Your task to perform on an android device: turn off airplane mode Image 0: 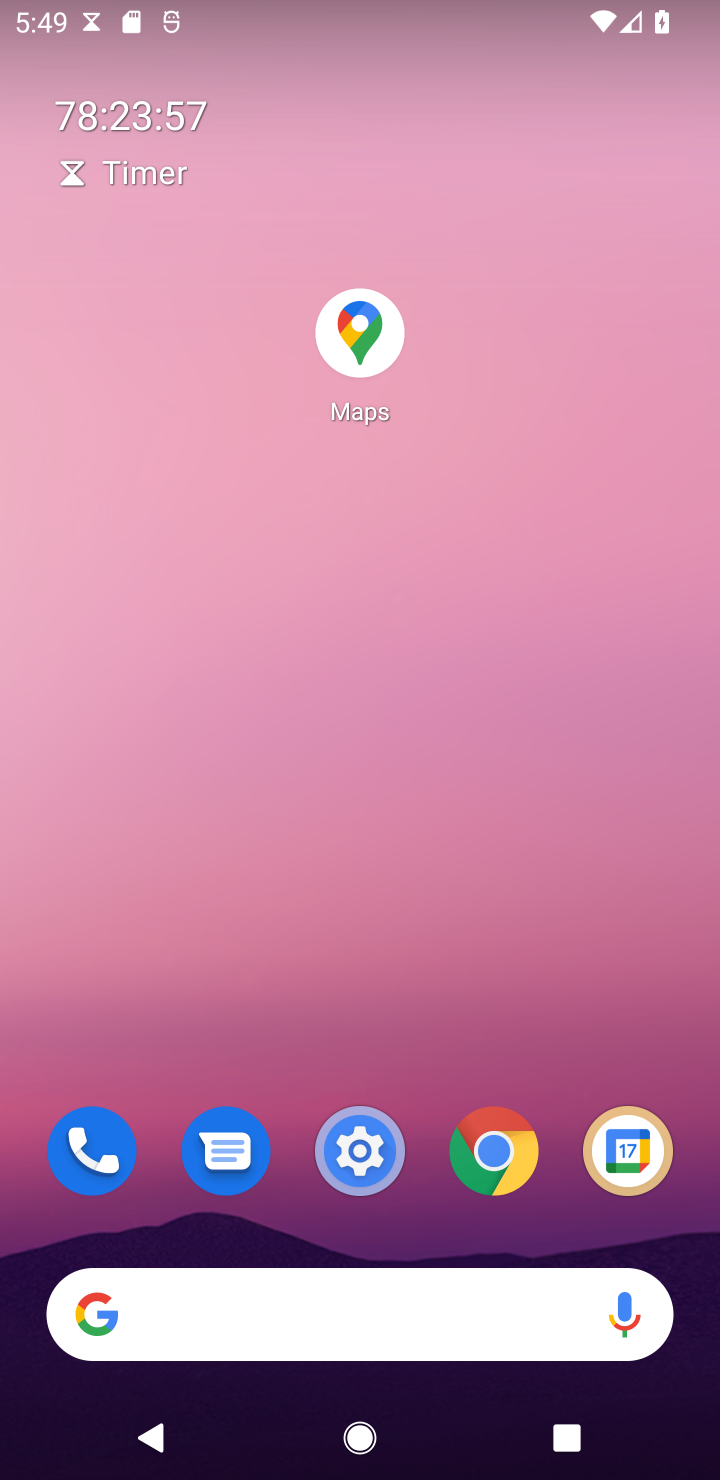
Step 0: drag from (355, 1203) to (325, 421)
Your task to perform on an android device: turn off airplane mode Image 1: 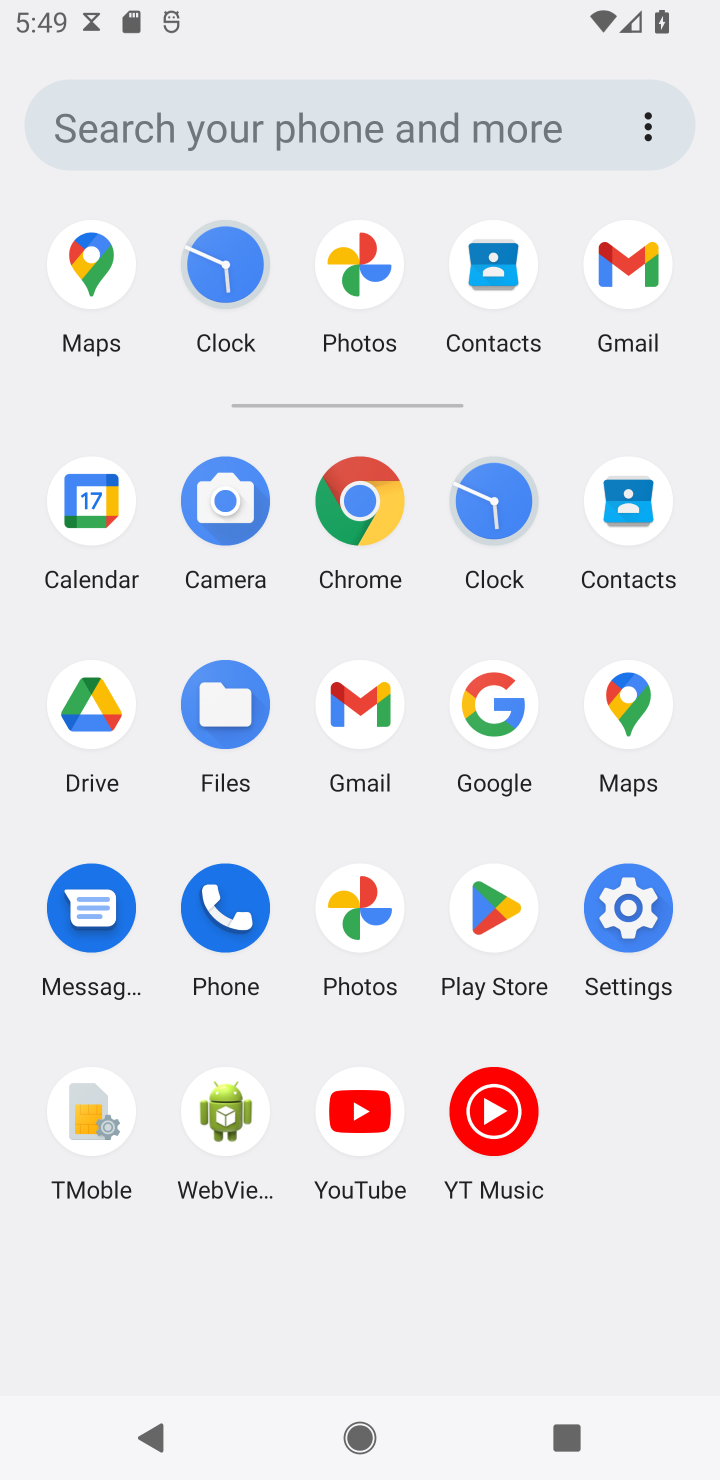
Step 1: click (621, 905)
Your task to perform on an android device: turn off airplane mode Image 2: 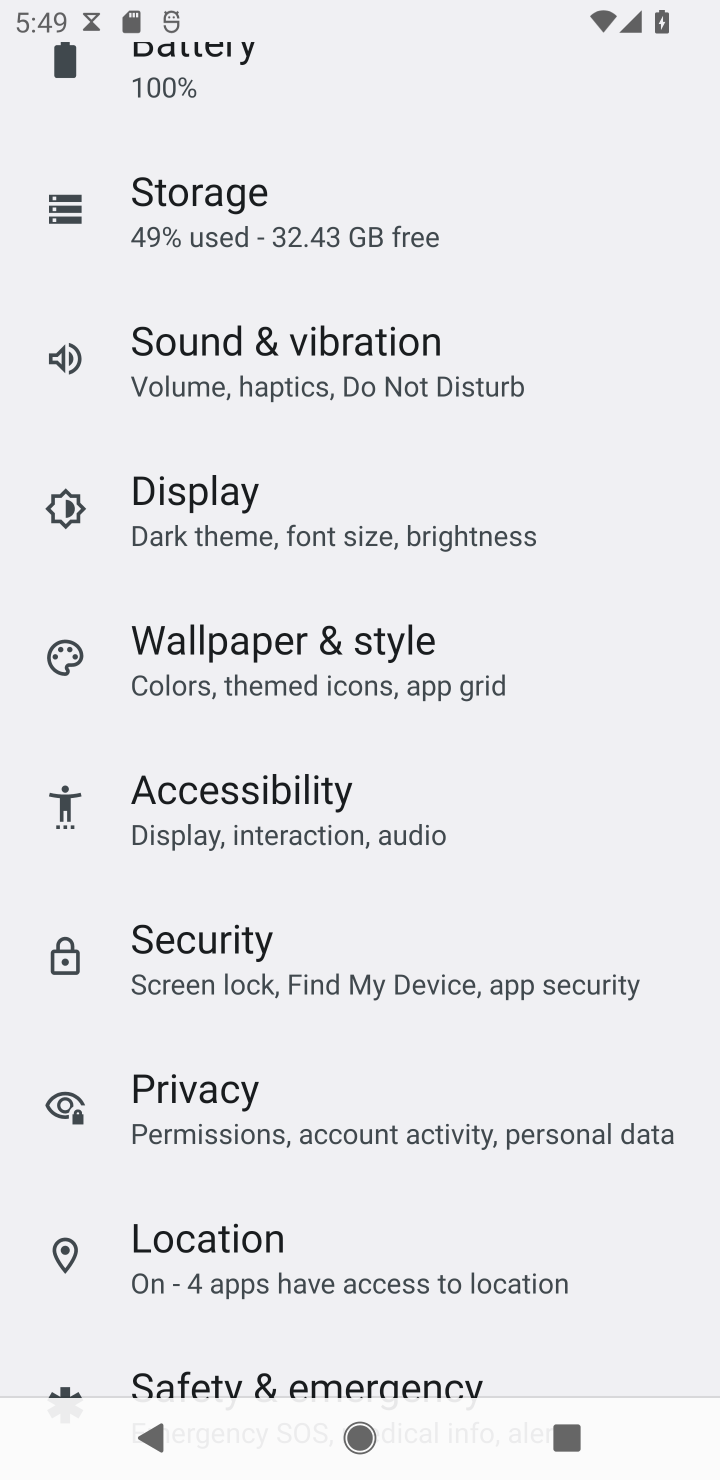
Step 2: drag from (165, 118) to (137, 989)
Your task to perform on an android device: turn off airplane mode Image 3: 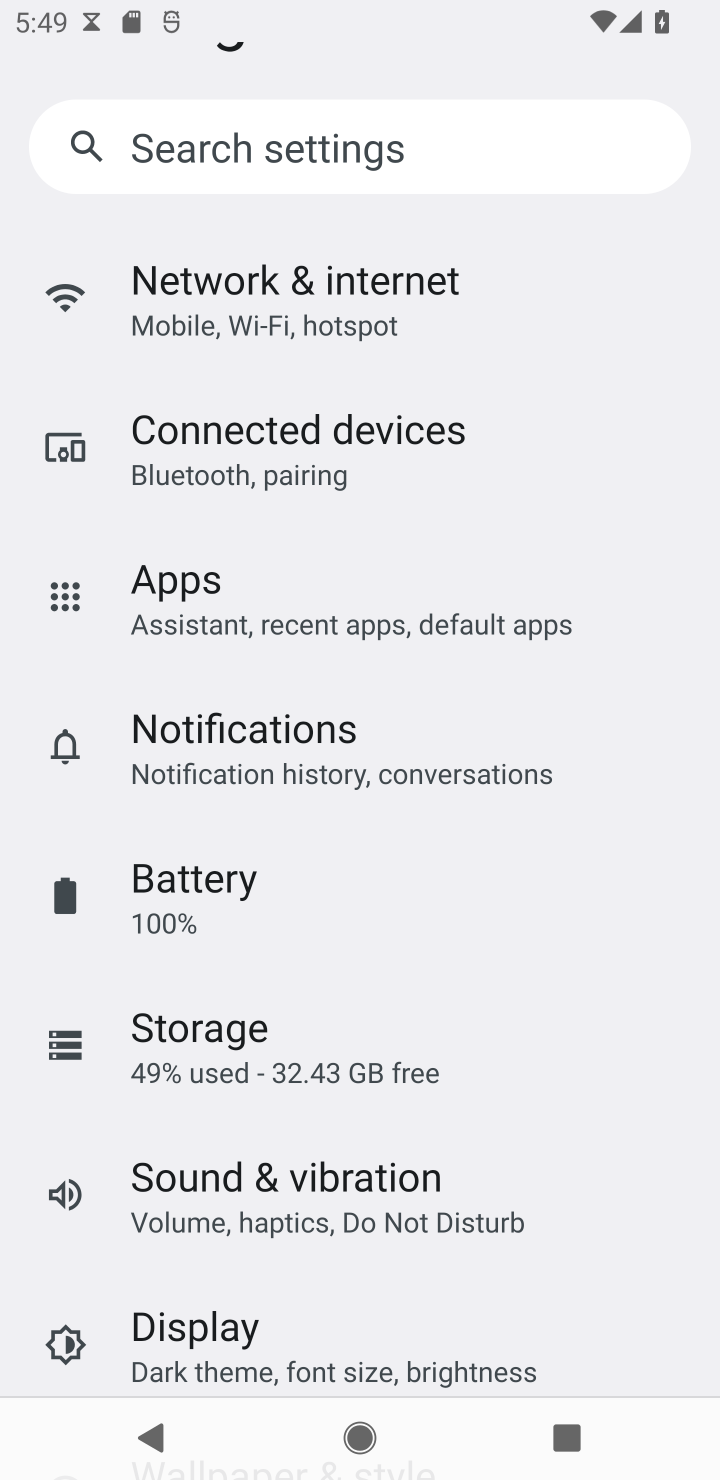
Step 3: drag from (229, 230) to (225, 655)
Your task to perform on an android device: turn off airplane mode Image 4: 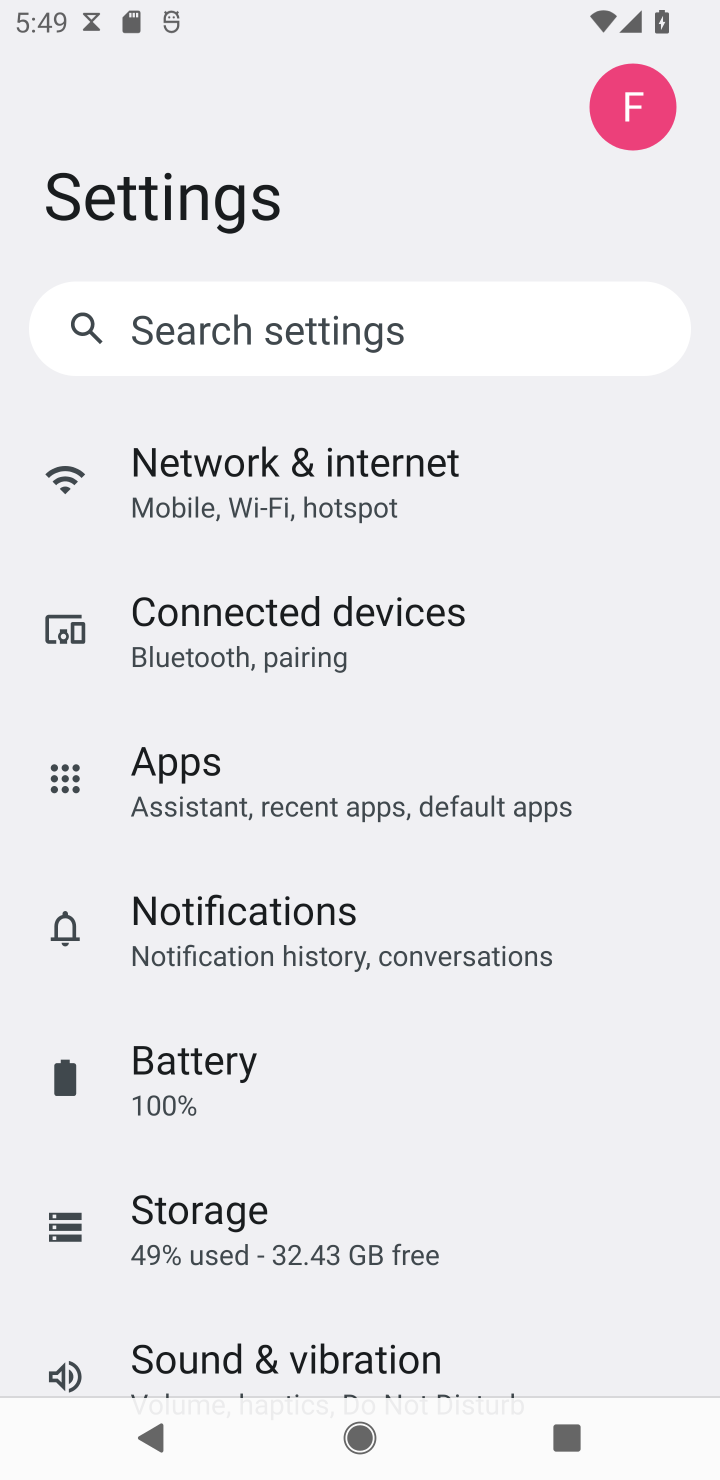
Step 4: click (290, 336)
Your task to perform on an android device: turn off airplane mode Image 5: 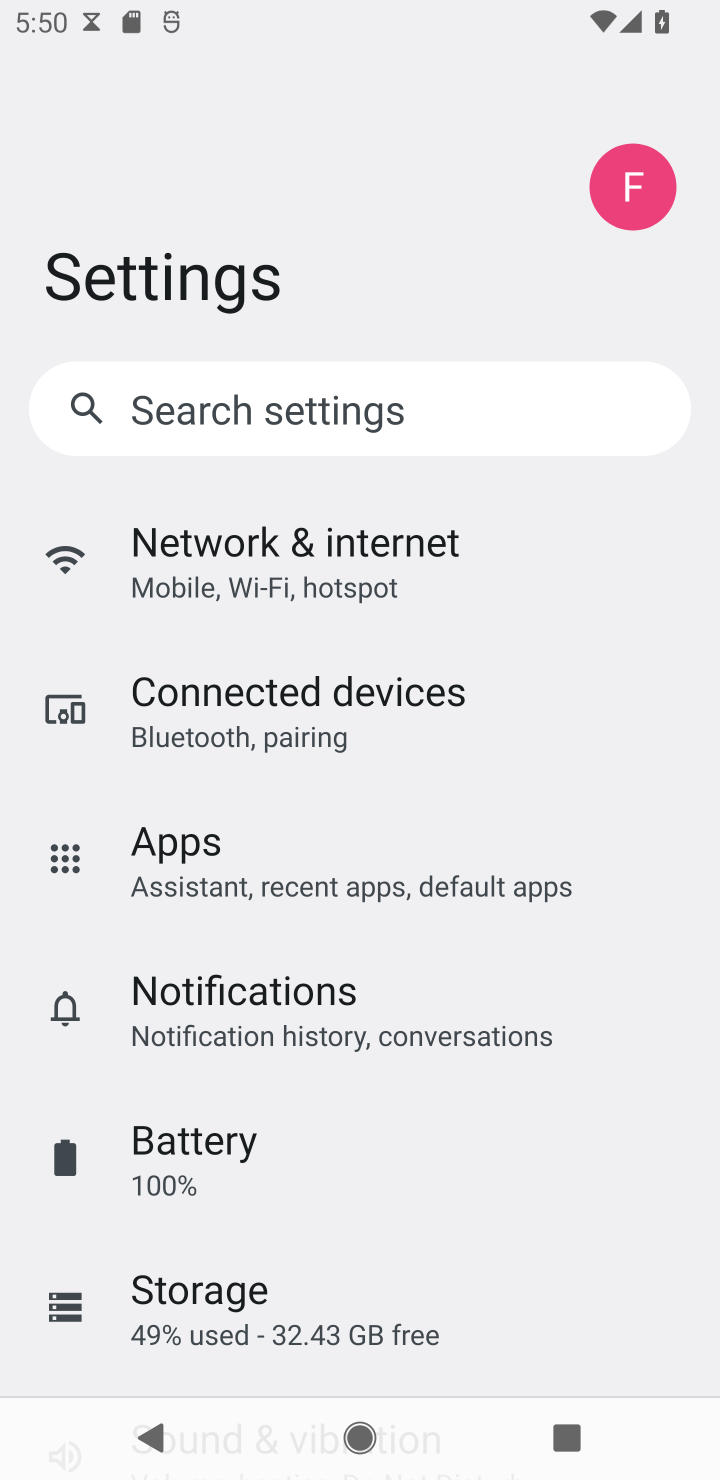
Step 5: click (338, 564)
Your task to perform on an android device: turn off airplane mode Image 6: 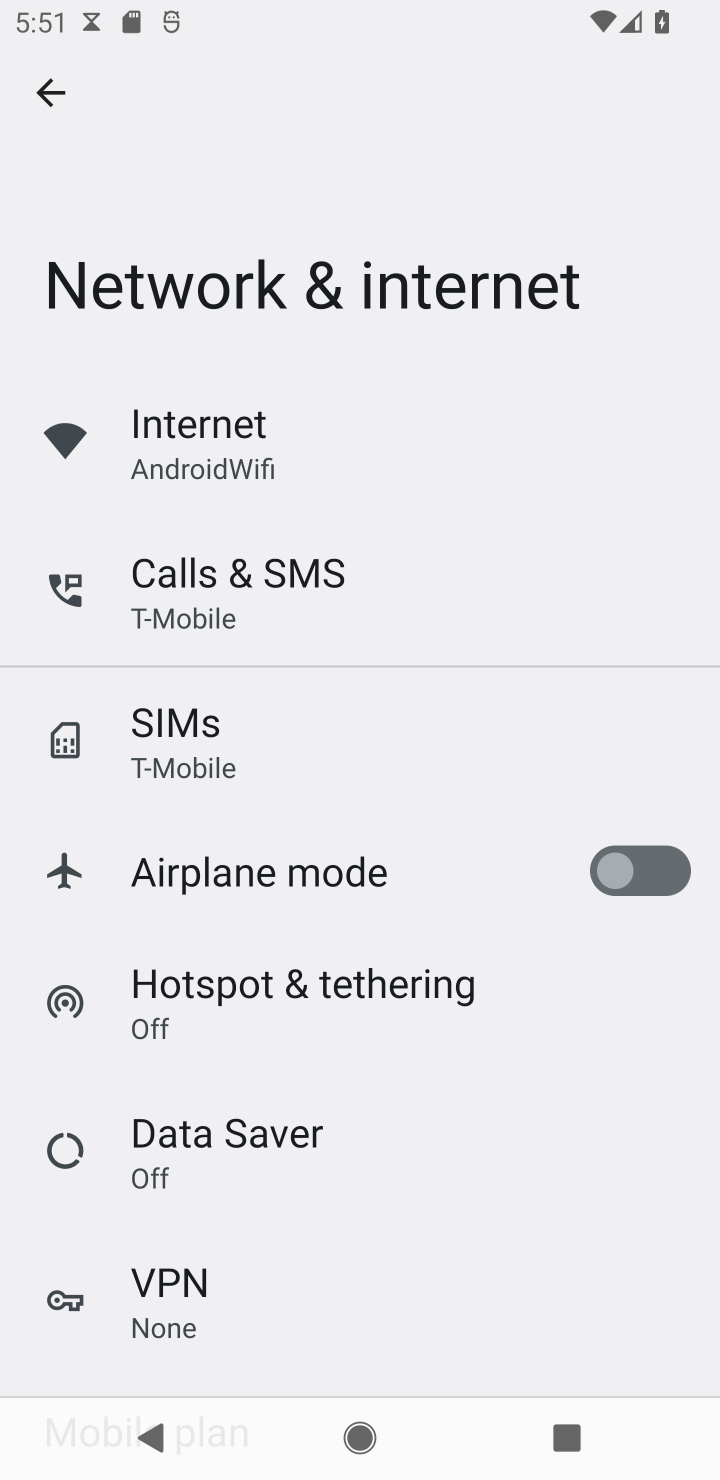
Step 6: task complete